Your task to perform on an android device: Open the calendar app, open the side menu, and click the "Day" option Image 0: 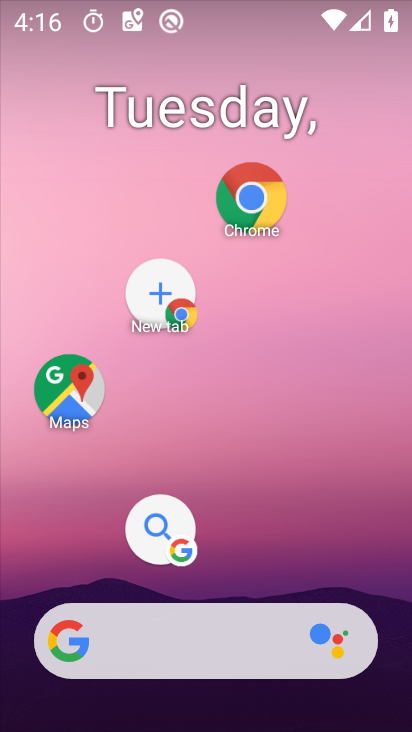
Step 0: drag from (207, 544) to (176, 191)
Your task to perform on an android device: Open the calendar app, open the side menu, and click the "Day" option Image 1: 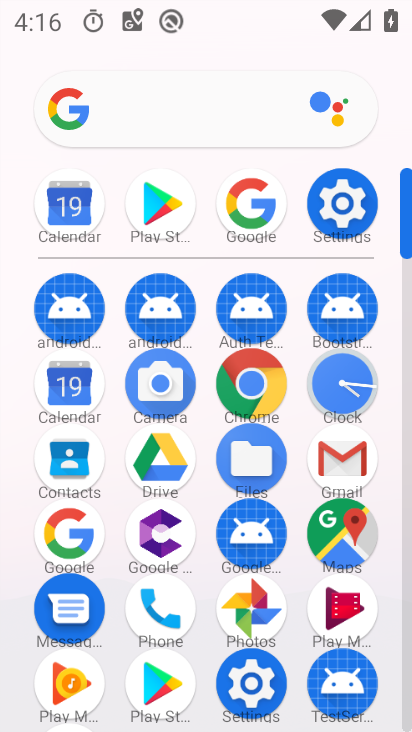
Step 1: click (73, 385)
Your task to perform on an android device: Open the calendar app, open the side menu, and click the "Day" option Image 2: 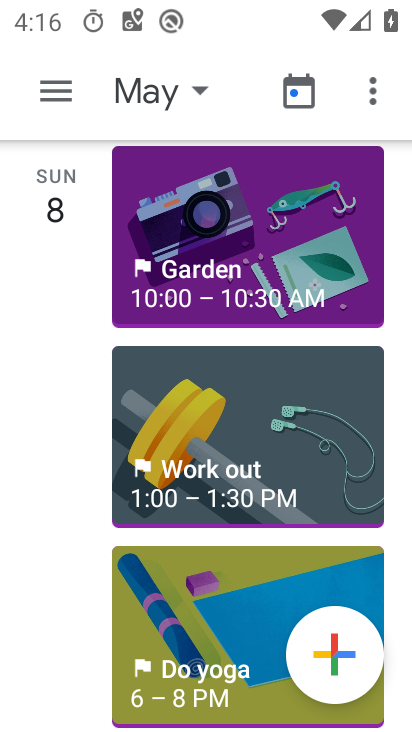
Step 2: click (63, 86)
Your task to perform on an android device: Open the calendar app, open the side menu, and click the "Day" option Image 3: 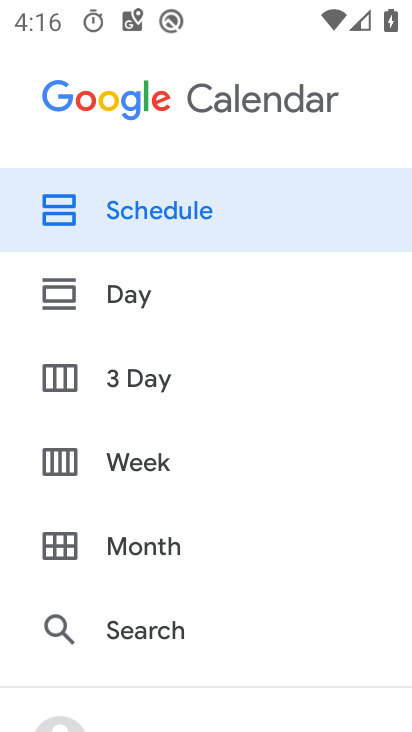
Step 3: click (124, 286)
Your task to perform on an android device: Open the calendar app, open the side menu, and click the "Day" option Image 4: 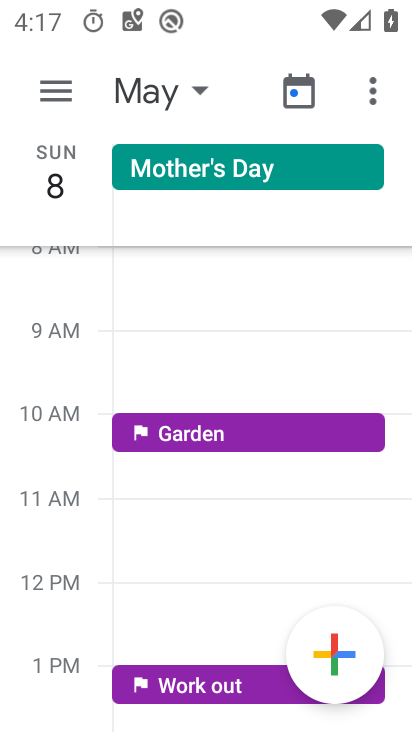
Step 4: task complete